Your task to perform on an android device: check data usage Image 0: 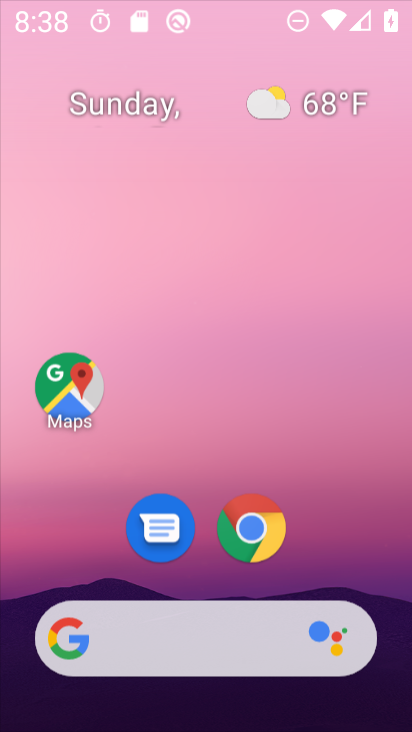
Step 0: press home button
Your task to perform on an android device: check data usage Image 1: 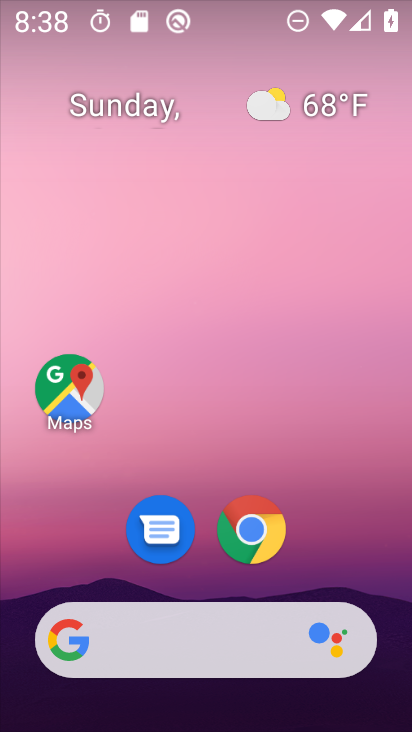
Step 1: drag from (208, 574) to (207, 81)
Your task to perform on an android device: check data usage Image 2: 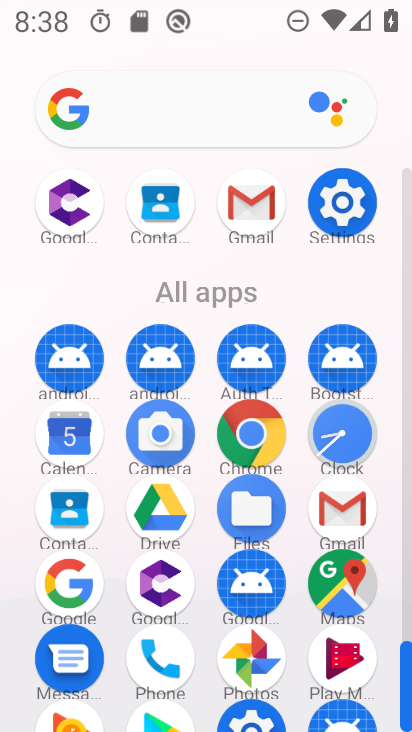
Step 2: click (340, 195)
Your task to perform on an android device: check data usage Image 3: 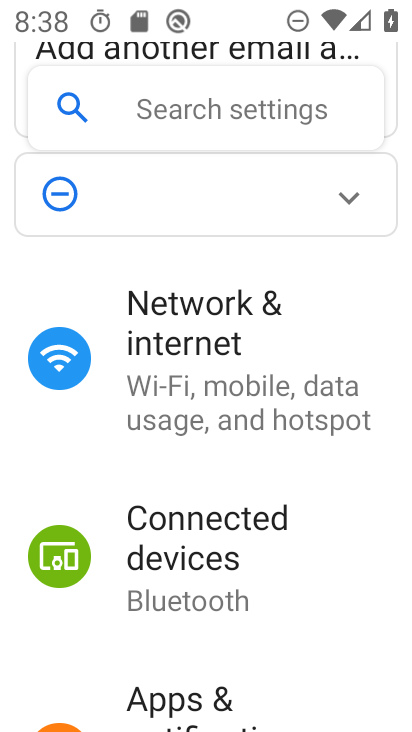
Step 3: click (219, 376)
Your task to perform on an android device: check data usage Image 4: 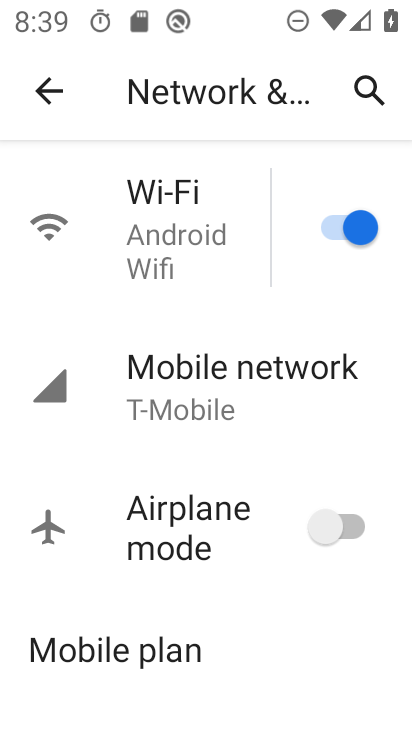
Step 4: click (261, 393)
Your task to perform on an android device: check data usage Image 5: 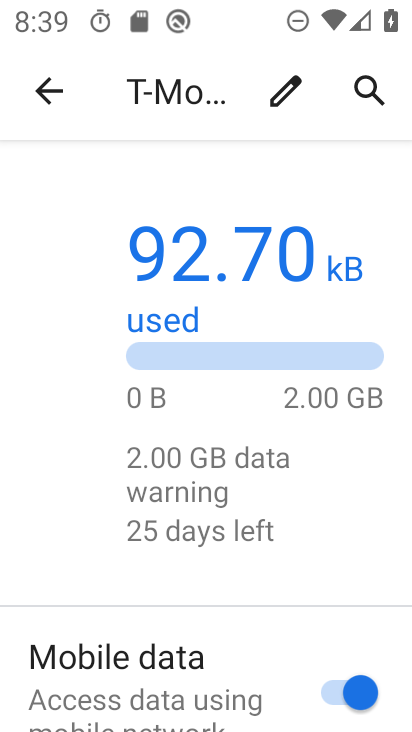
Step 5: drag from (222, 663) to (299, 155)
Your task to perform on an android device: check data usage Image 6: 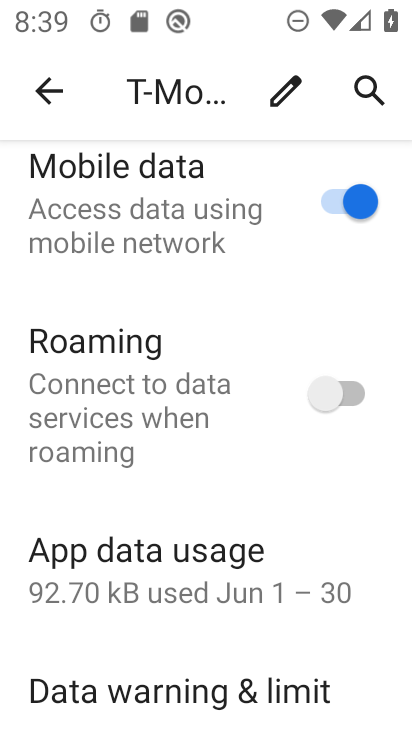
Step 6: click (206, 577)
Your task to perform on an android device: check data usage Image 7: 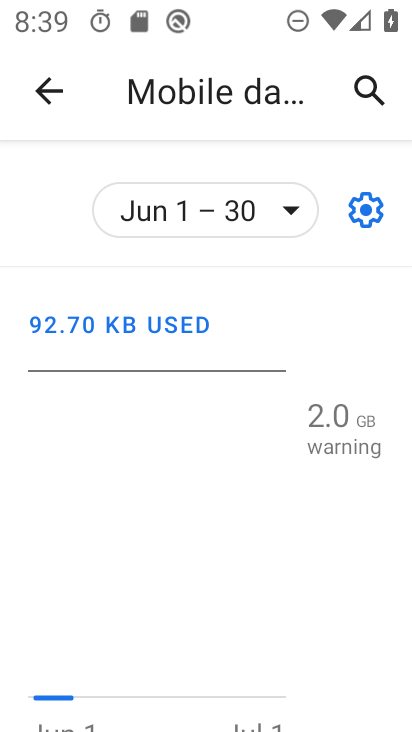
Step 7: task complete